Your task to perform on an android device: Go to sound settings Image 0: 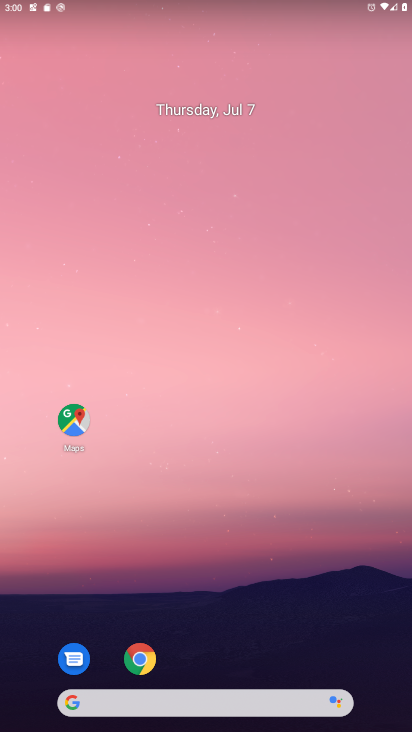
Step 0: drag from (215, 663) to (265, 138)
Your task to perform on an android device: Go to sound settings Image 1: 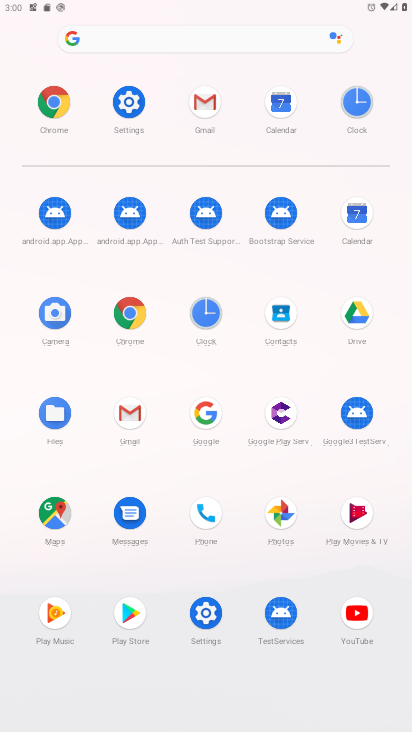
Step 1: click (206, 622)
Your task to perform on an android device: Go to sound settings Image 2: 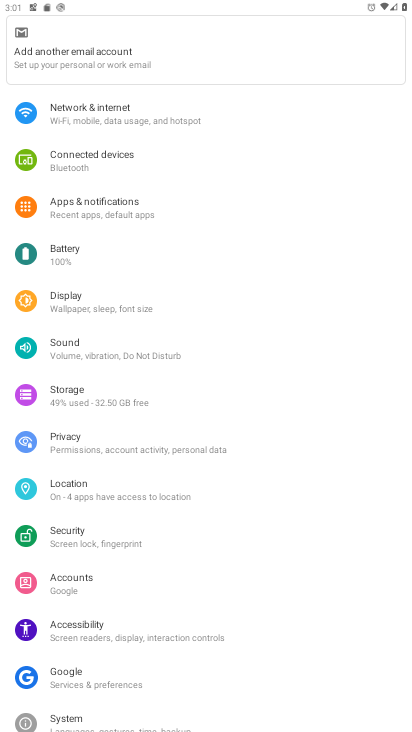
Step 2: drag from (137, 583) to (276, 134)
Your task to perform on an android device: Go to sound settings Image 3: 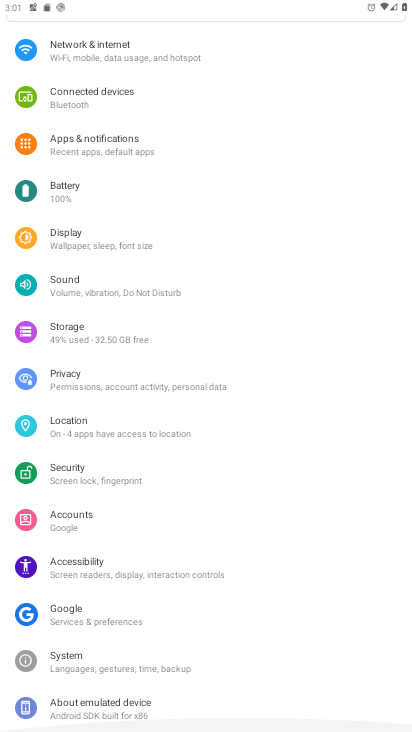
Step 3: drag from (215, 404) to (399, 721)
Your task to perform on an android device: Go to sound settings Image 4: 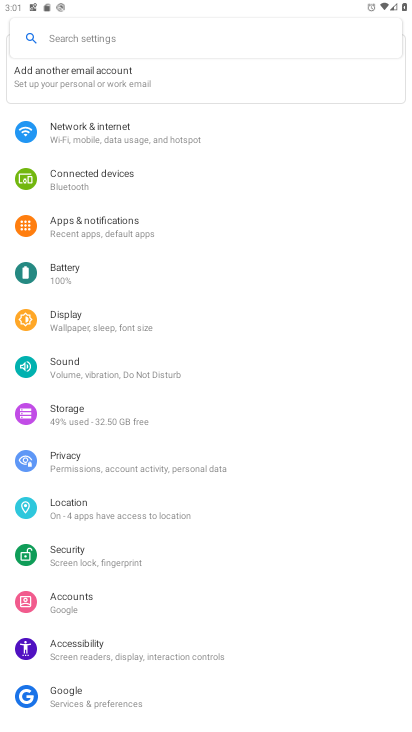
Step 4: drag from (142, 175) to (137, 731)
Your task to perform on an android device: Go to sound settings Image 5: 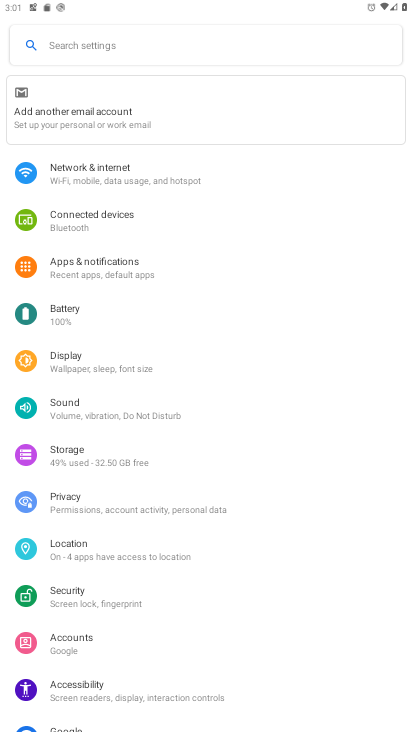
Step 5: drag from (142, 255) to (147, 698)
Your task to perform on an android device: Go to sound settings Image 6: 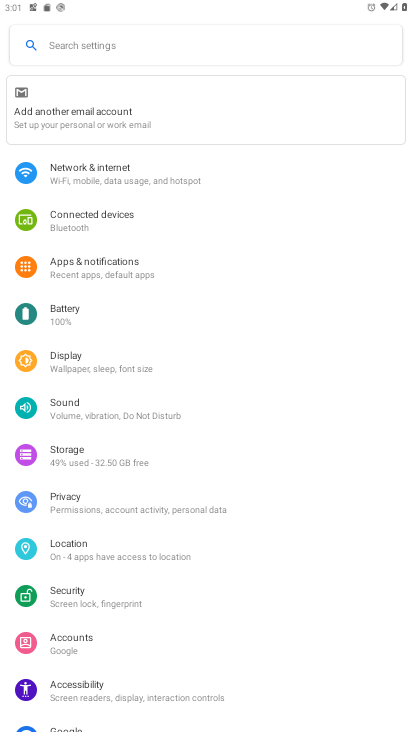
Step 6: drag from (223, 599) to (266, 80)
Your task to perform on an android device: Go to sound settings Image 7: 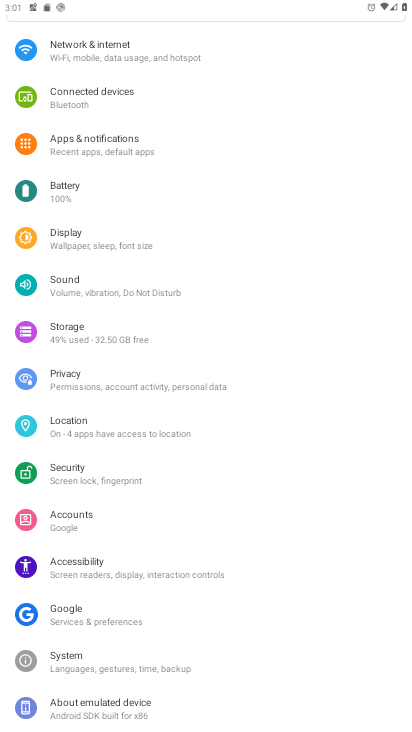
Step 7: click (95, 281)
Your task to perform on an android device: Go to sound settings Image 8: 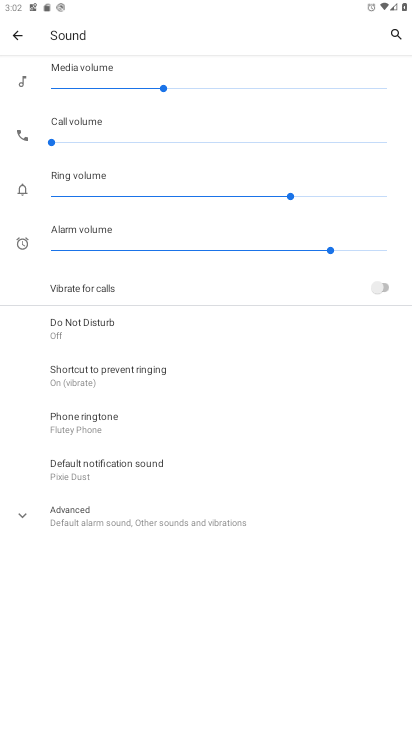
Step 8: task complete